Your task to perform on an android device: Open calendar and show me the third week of next month Image 0: 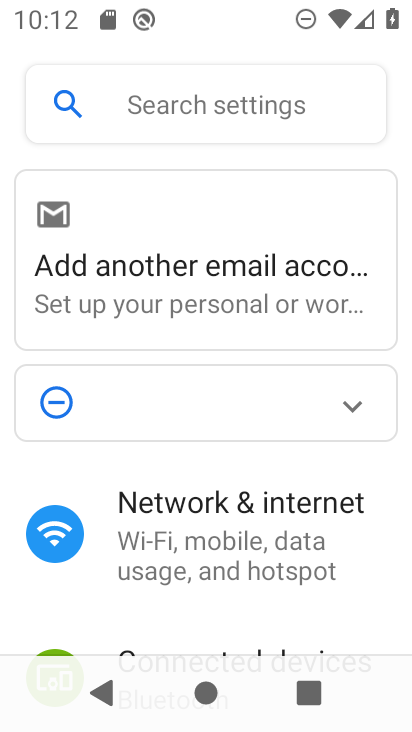
Step 0: press home button
Your task to perform on an android device: Open calendar and show me the third week of next month Image 1: 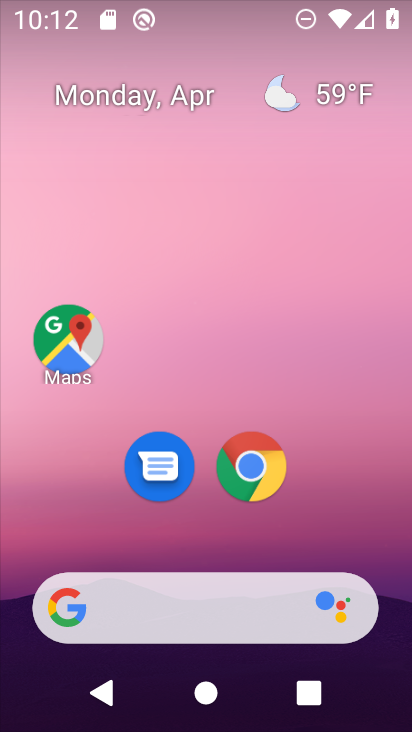
Step 1: drag from (188, 428) to (229, 3)
Your task to perform on an android device: Open calendar and show me the third week of next month Image 2: 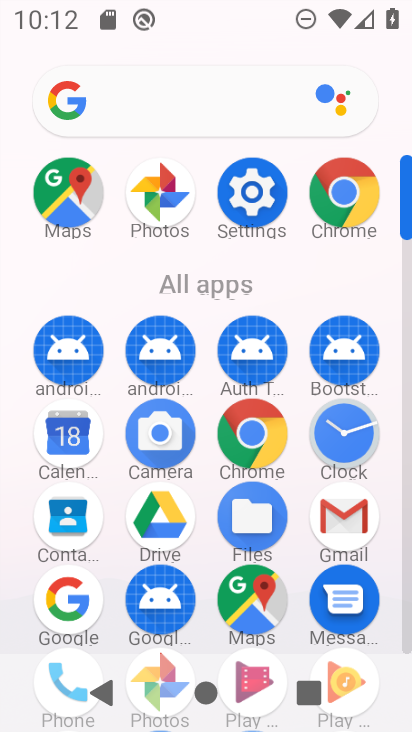
Step 2: click (61, 439)
Your task to perform on an android device: Open calendar and show me the third week of next month Image 3: 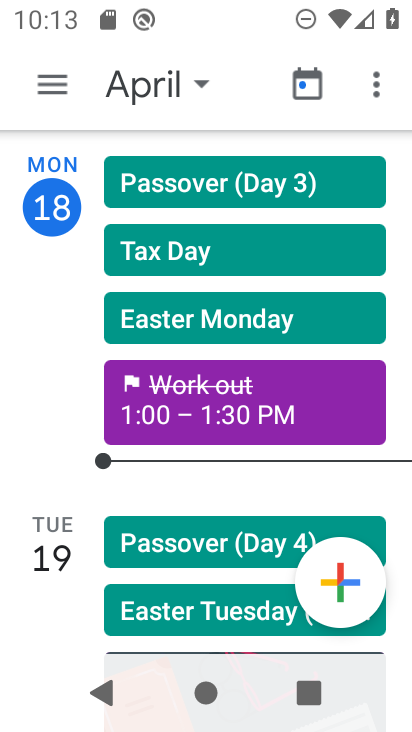
Step 3: click (185, 80)
Your task to perform on an android device: Open calendar and show me the third week of next month Image 4: 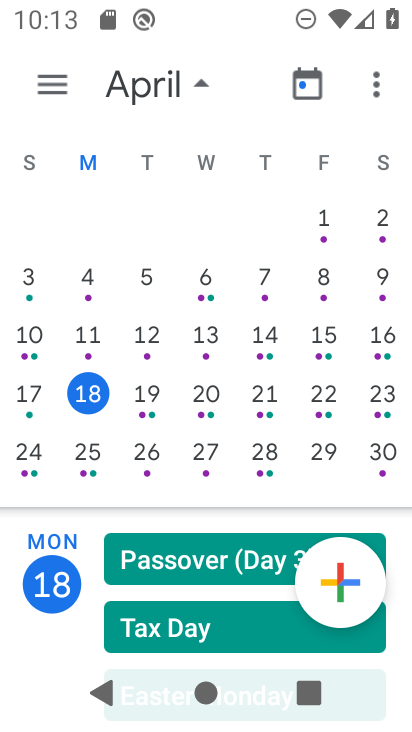
Step 4: drag from (367, 320) to (52, 301)
Your task to perform on an android device: Open calendar and show me the third week of next month Image 5: 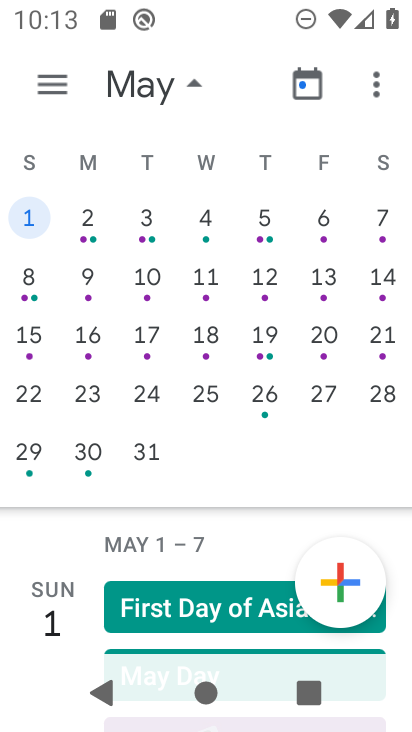
Step 5: click (93, 336)
Your task to perform on an android device: Open calendar and show me the third week of next month Image 6: 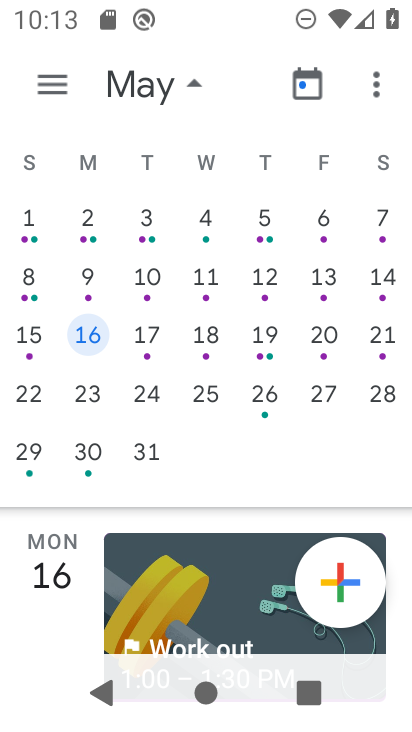
Step 6: task complete